Your task to perform on an android device: Go to settings Image 0: 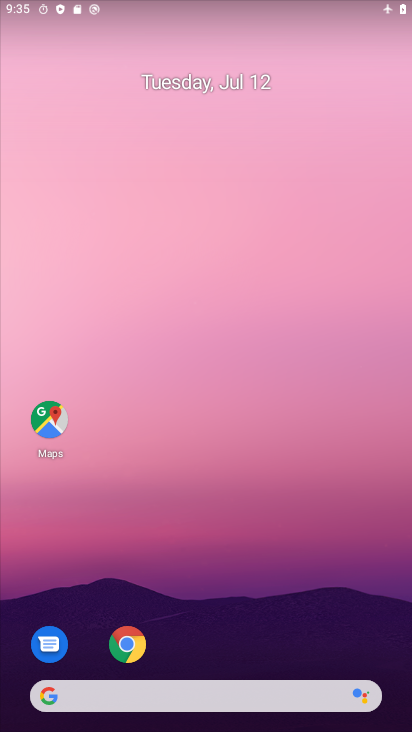
Step 0: drag from (241, 651) to (211, 249)
Your task to perform on an android device: Go to settings Image 1: 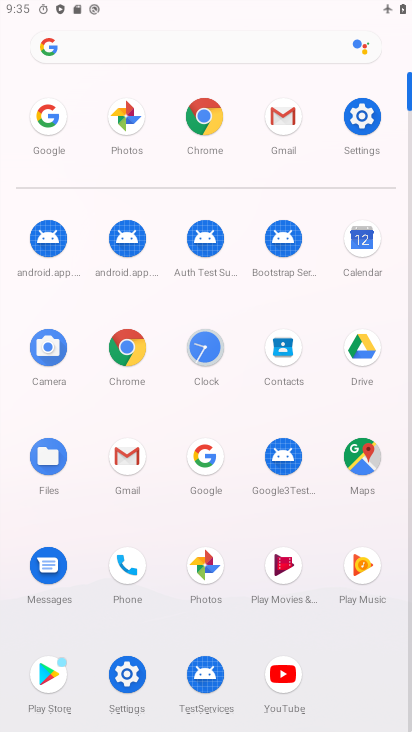
Step 1: click (355, 136)
Your task to perform on an android device: Go to settings Image 2: 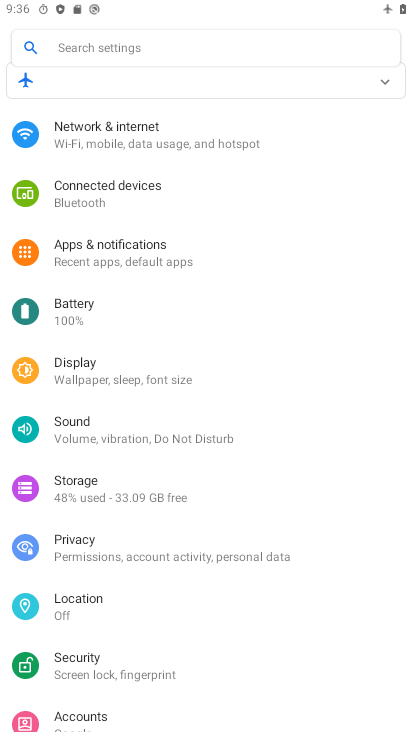
Step 2: task complete